Your task to perform on an android device: Turn on the flashlight Image 0: 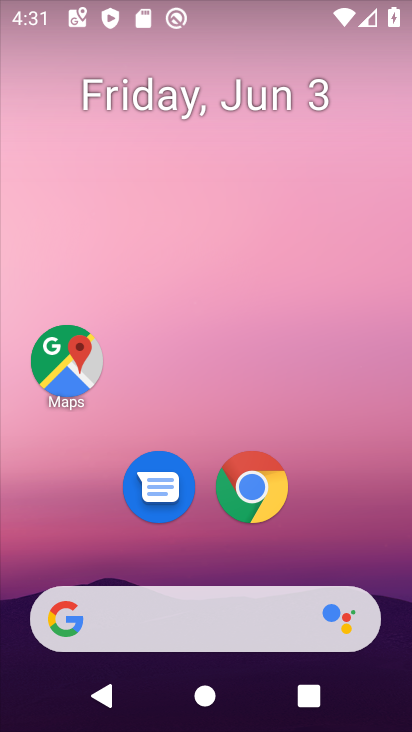
Step 0: drag from (219, 545) to (316, 19)
Your task to perform on an android device: Turn on the flashlight Image 1: 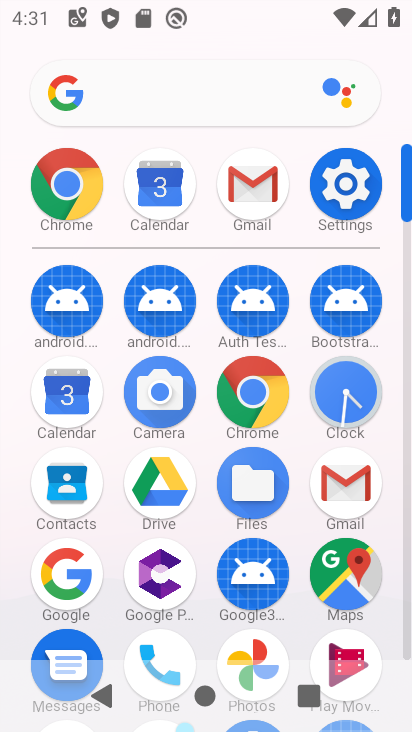
Step 1: click (334, 196)
Your task to perform on an android device: Turn on the flashlight Image 2: 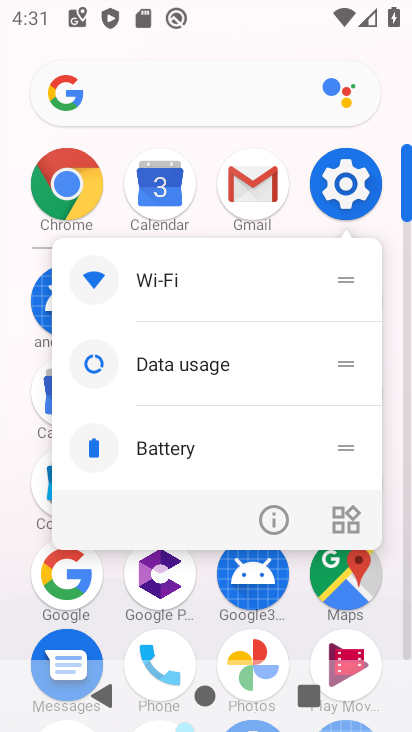
Step 2: click (277, 537)
Your task to perform on an android device: Turn on the flashlight Image 3: 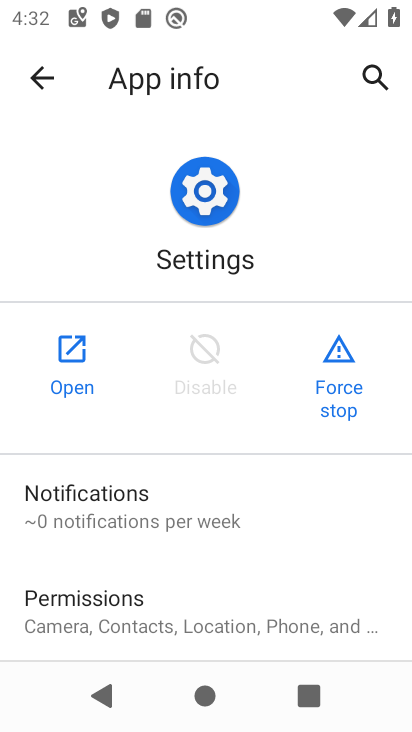
Step 3: click (84, 365)
Your task to perform on an android device: Turn on the flashlight Image 4: 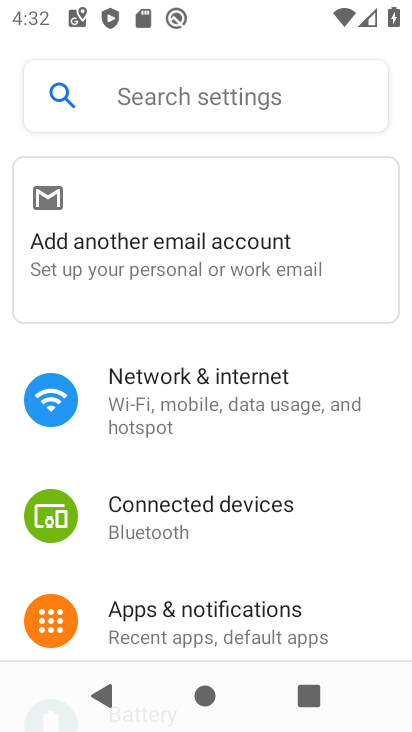
Step 4: drag from (181, 512) to (309, 144)
Your task to perform on an android device: Turn on the flashlight Image 5: 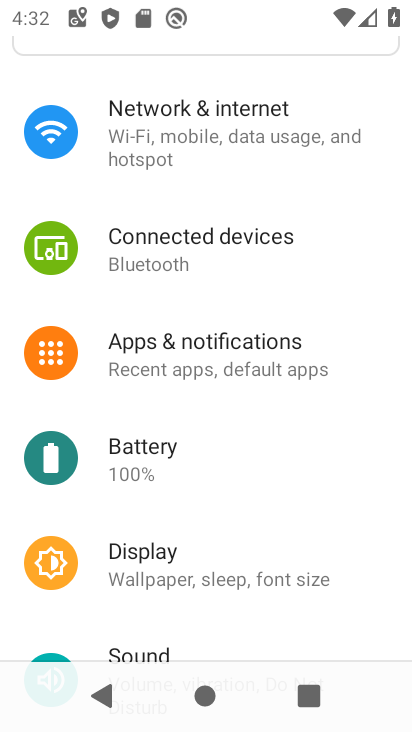
Step 5: drag from (152, 88) to (341, 572)
Your task to perform on an android device: Turn on the flashlight Image 6: 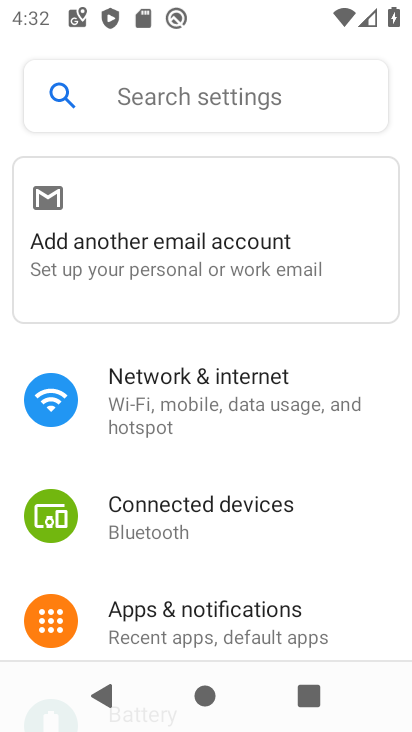
Step 6: click (99, 96)
Your task to perform on an android device: Turn on the flashlight Image 7: 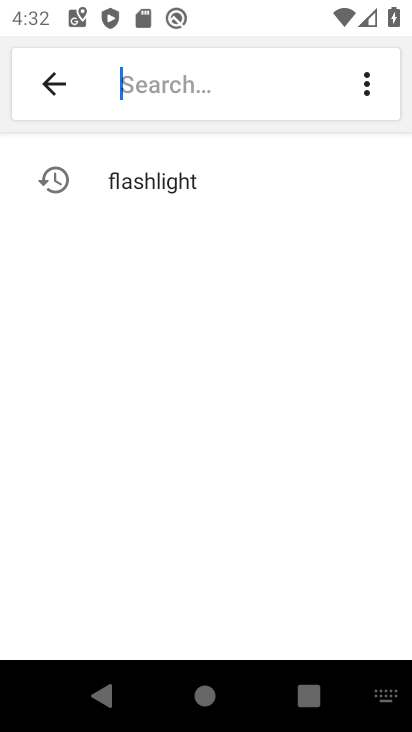
Step 7: click (137, 159)
Your task to perform on an android device: Turn on the flashlight Image 8: 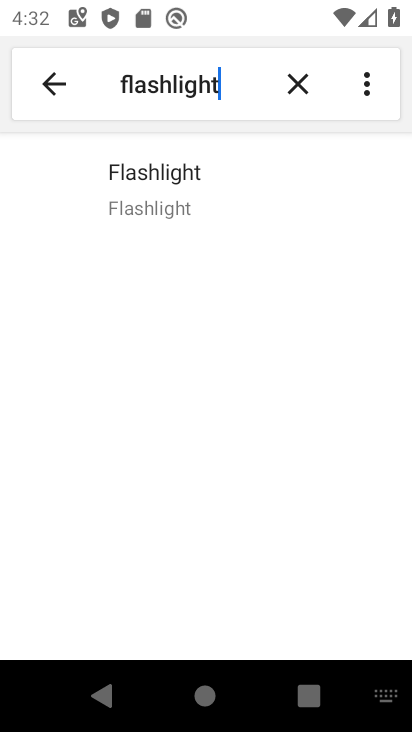
Step 8: task complete